Your task to perform on an android device: check battery use Image 0: 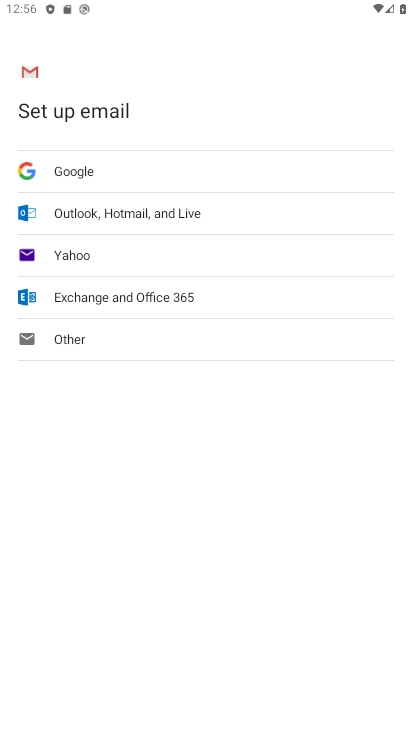
Step 0: press home button
Your task to perform on an android device: check battery use Image 1: 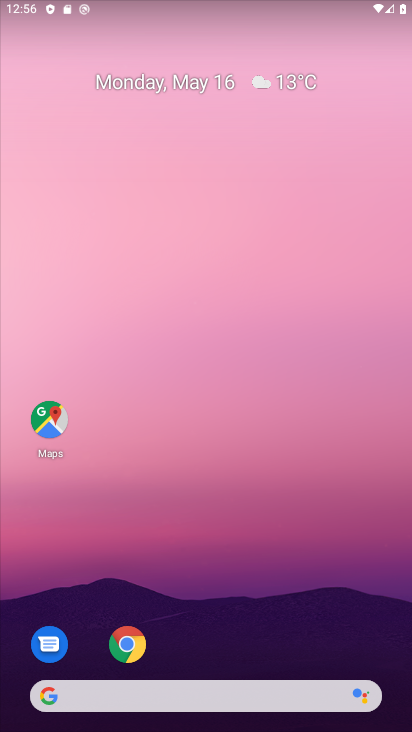
Step 1: drag from (199, 637) to (271, 208)
Your task to perform on an android device: check battery use Image 2: 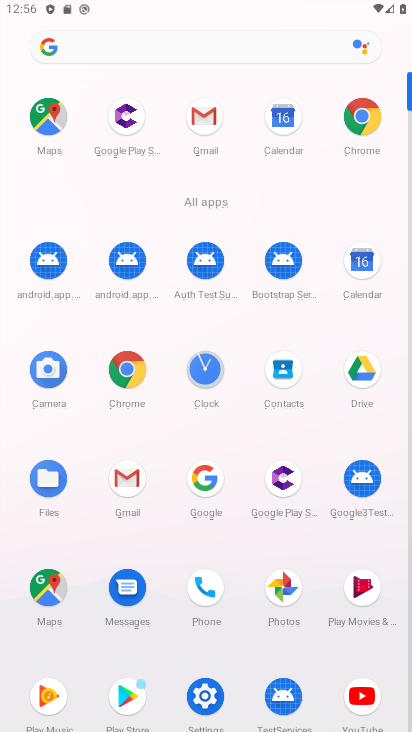
Step 2: click (210, 692)
Your task to perform on an android device: check battery use Image 3: 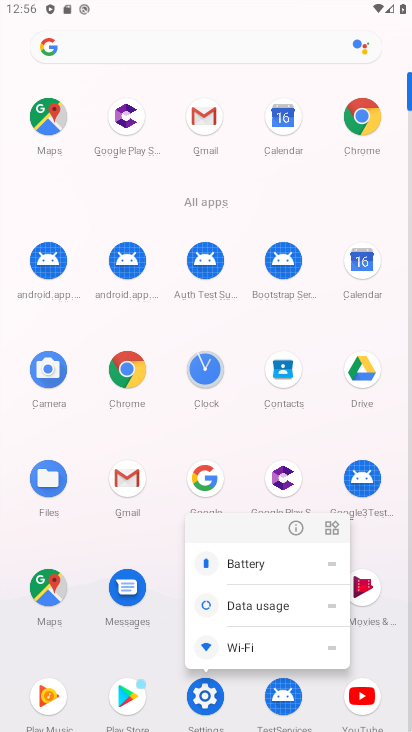
Step 3: click (209, 687)
Your task to perform on an android device: check battery use Image 4: 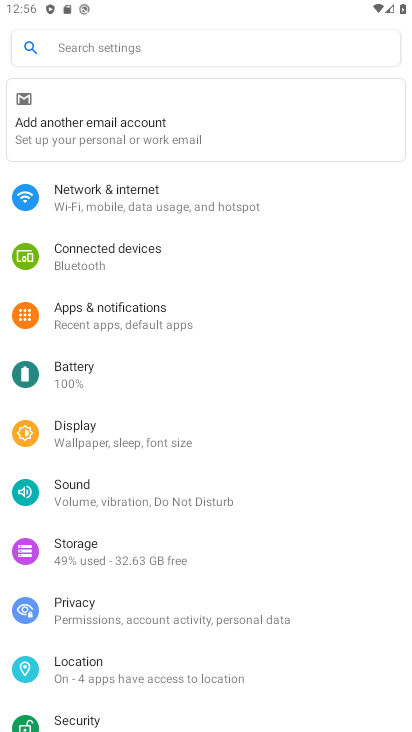
Step 4: click (131, 376)
Your task to perform on an android device: check battery use Image 5: 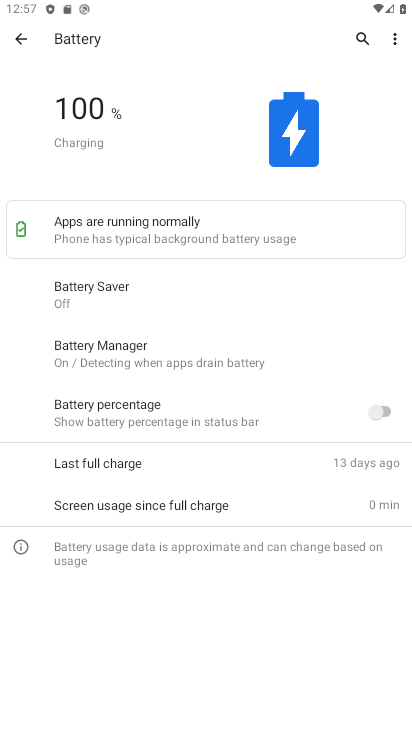
Step 5: task complete